Your task to perform on an android device: toggle location history Image 0: 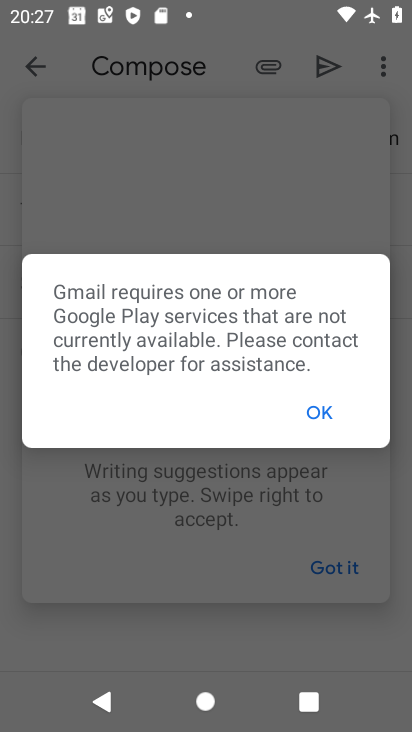
Step 0: press home button
Your task to perform on an android device: toggle location history Image 1: 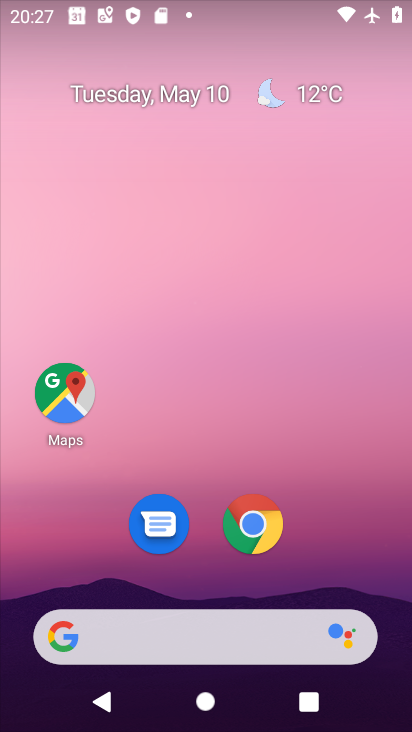
Step 1: drag from (354, 518) to (302, 21)
Your task to perform on an android device: toggle location history Image 2: 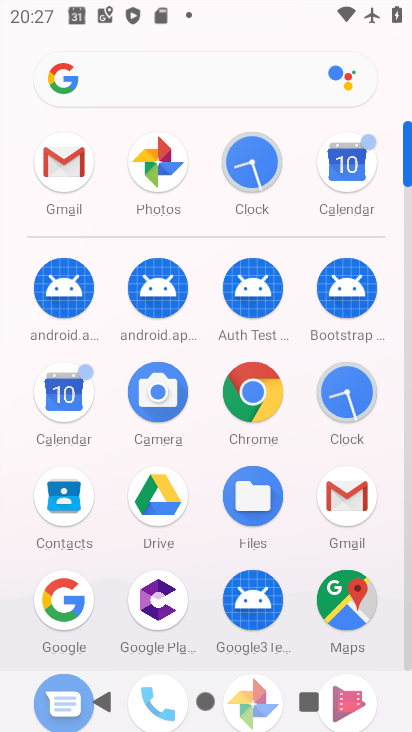
Step 2: drag from (210, 461) to (196, 226)
Your task to perform on an android device: toggle location history Image 3: 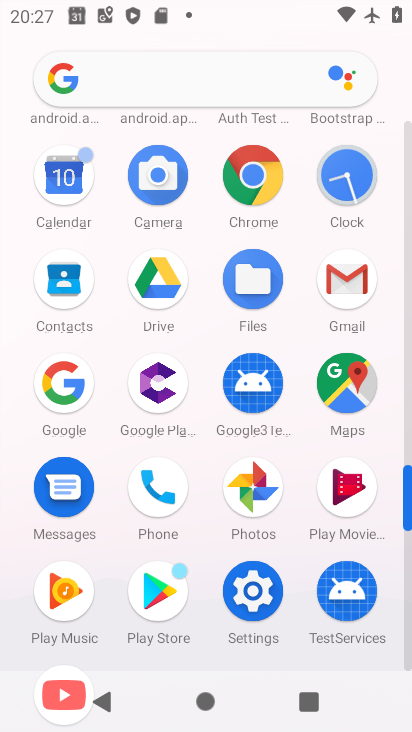
Step 3: click (248, 586)
Your task to perform on an android device: toggle location history Image 4: 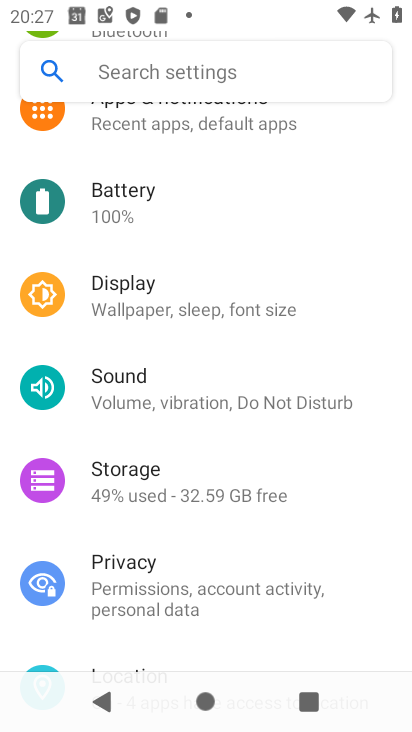
Step 4: drag from (277, 499) to (288, 286)
Your task to perform on an android device: toggle location history Image 5: 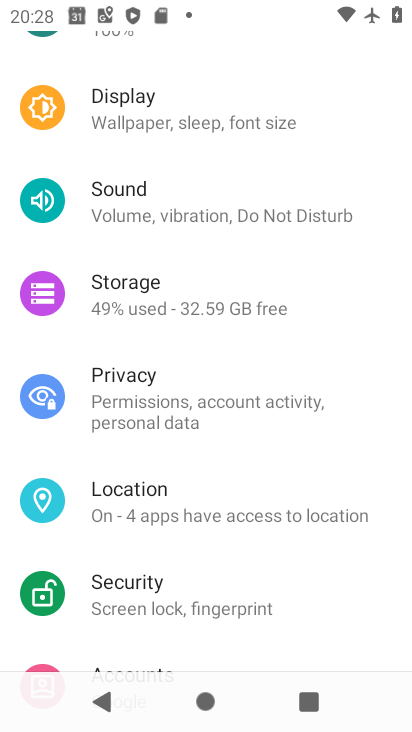
Step 5: click (225, 498)
Your task to perform on an android device: toggle location history Image 6: 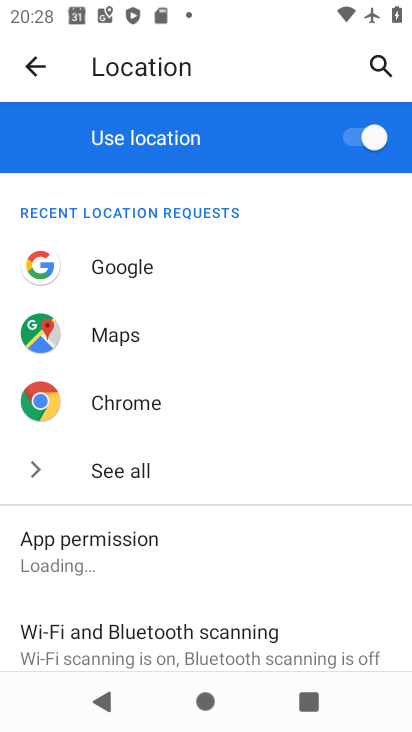
Step 6: drag from (222, 567) to (249, 270)
Your task to perform on an android device: toggle location history Image 7: 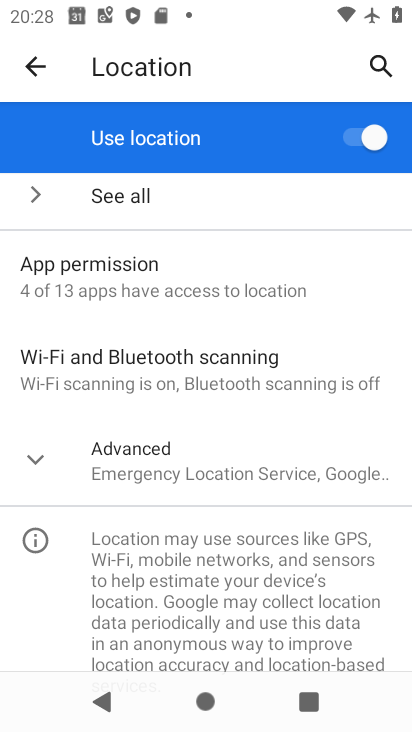
Step 7: click (32, 455)
Your task to perform on an android device: toggle location history Image 8: 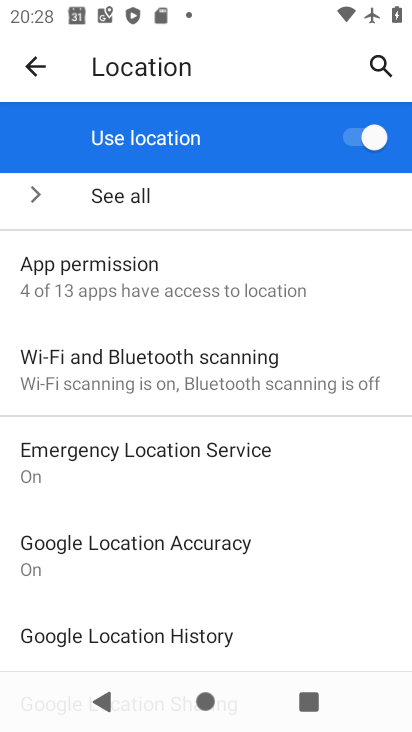
Step 8: drag from (293, 566) to (303, 435)
Your task to perform on an android device: toggle location history Image 9: 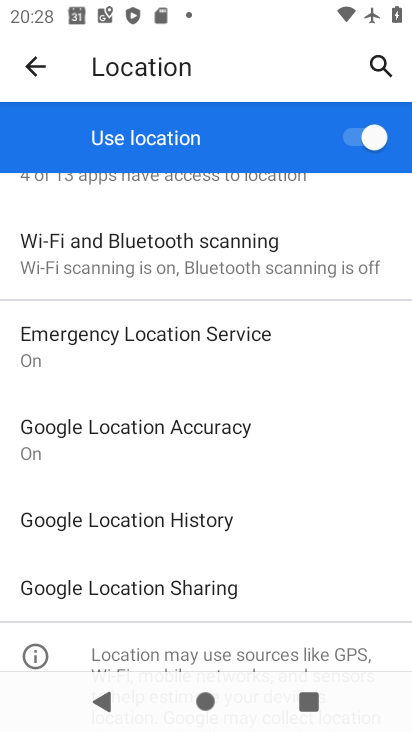
Step 9: click (221, 522)
Your task to perform on an android device: toggle location history Image 10: 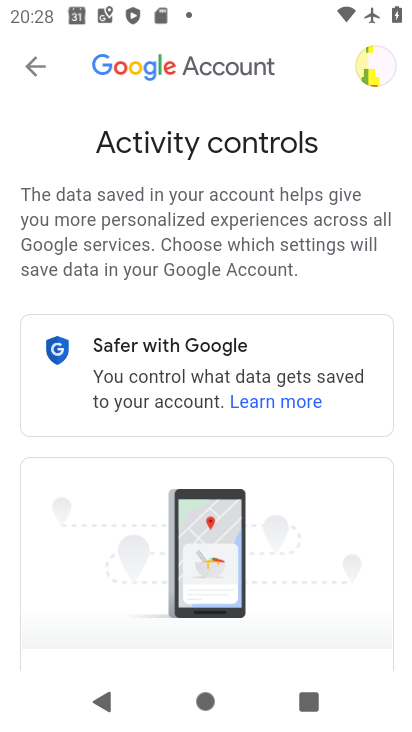
Step 10: drag from (304, 560) to (269, 194)
Your task to perform on an android device: toggle location history Image 11: 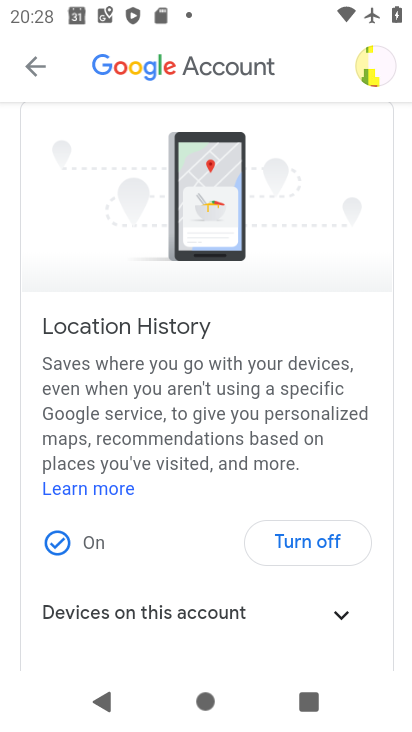
Step 11: click (313, 534)
Your task to perform on an android device: toggle location history Image 12: 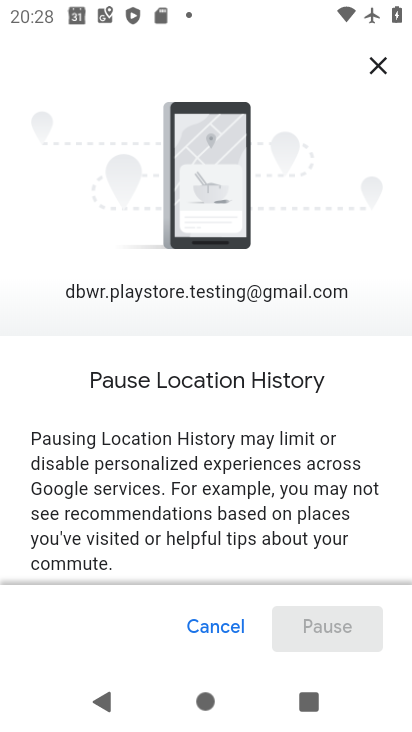
Step 12: drag from (313, 524) to (305, 90)
Your task to perform on an android device: toggle location history Image 13: 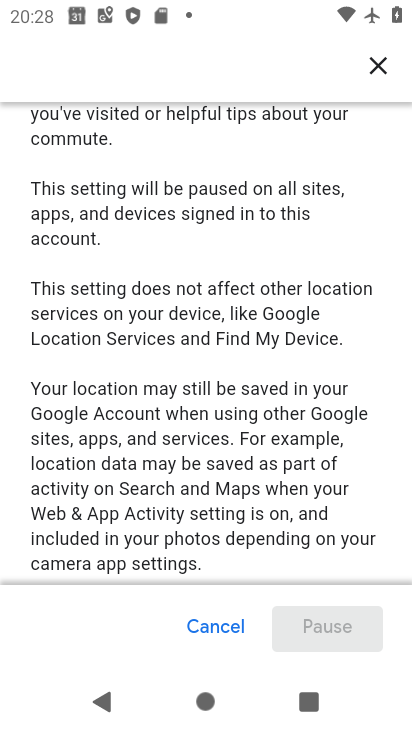
Step 13: drag from (308, 496) to (310, 116)
Your task to perform on an android device: toggle location history Image 14: 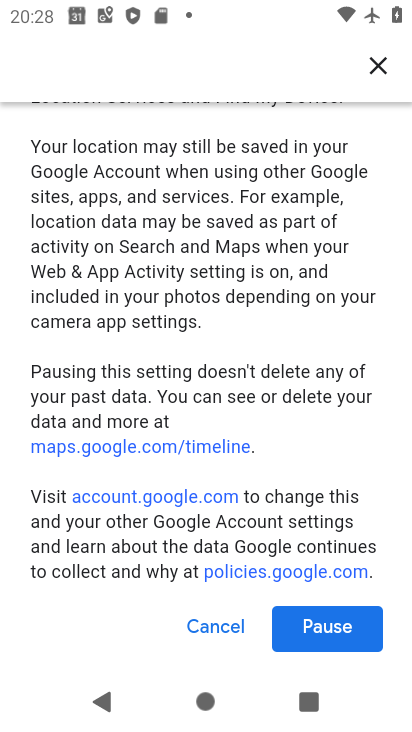
Step 14: click (338, 625)
Your task to perform on an android device: toggle location history Image 15: 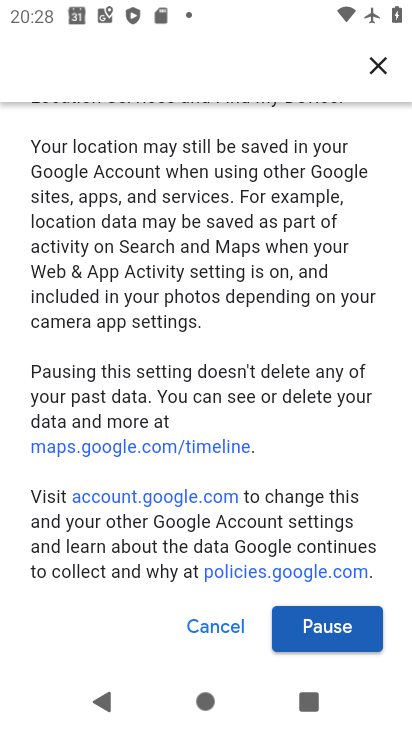
Step 15: click (338, 623)
Your task to perform on an android device: toggle location history Image 16: 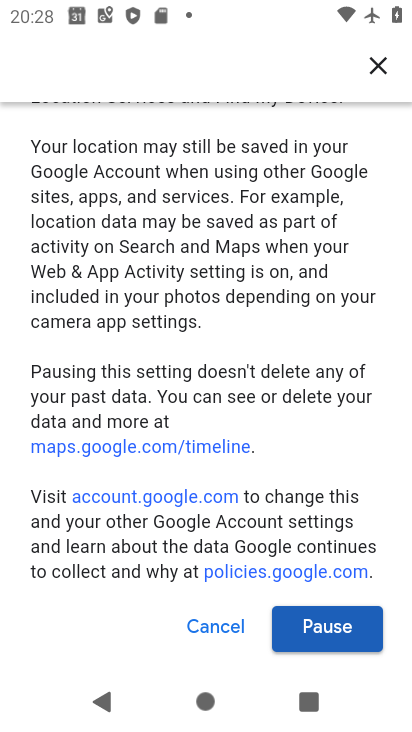
Step 16: click (338, 620)
Your task to perform on an android device: toggle location history Image 17: 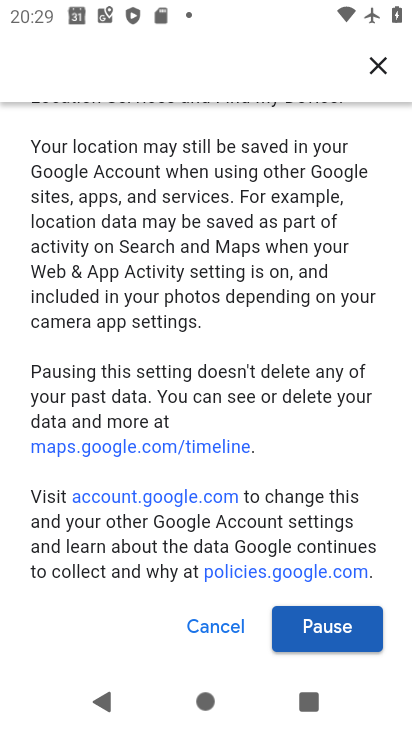
Step 17: click (338, 622)
Your task to perform on an android device: toggle location history Image 18: 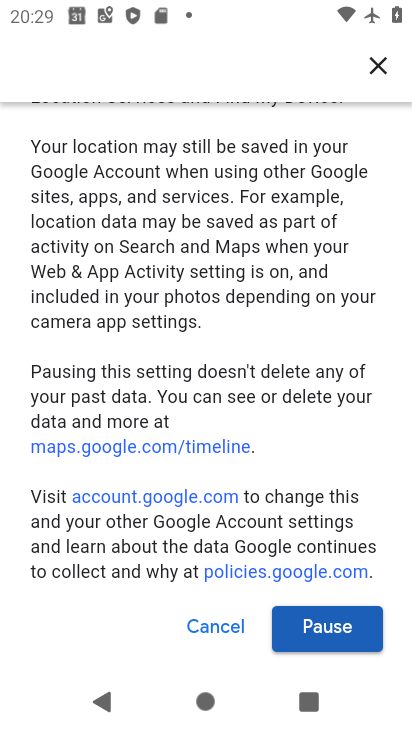
Step 18: click (338, 620)
Your task to perform on an android device: toggle location history Image 19: 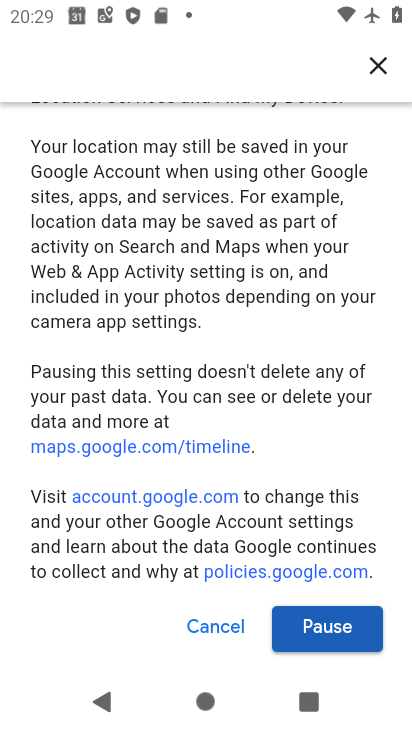
Step 19: click (338, 623)
Your task to perform on an android device: toggle location history Image 20: 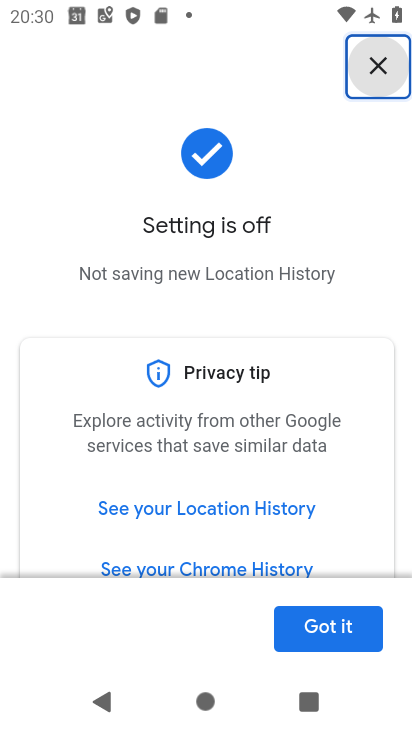
Step 20: click (338, 623)
Your task to perform on an android device: toggle location history Image 21: 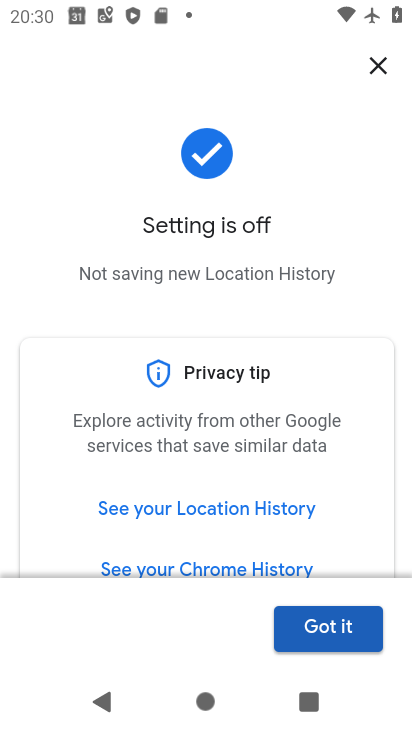
Step 21: click (338, 626)
Your task to perform on an android device: toggle location history Image 22: 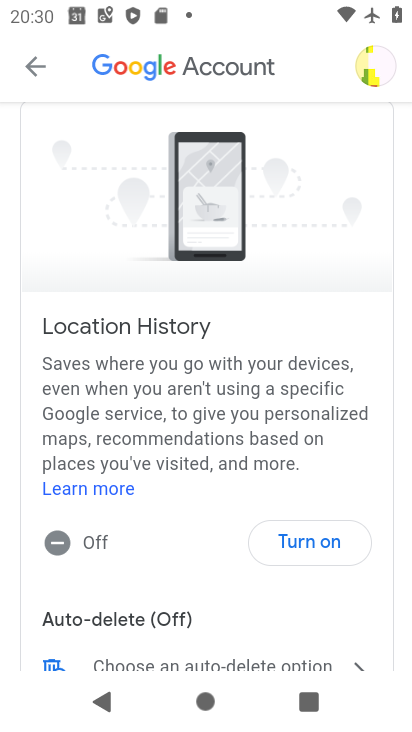
Step 22: task complete